Your task to perform on an android device: Open calendar and show me the second week of next month Image 0: 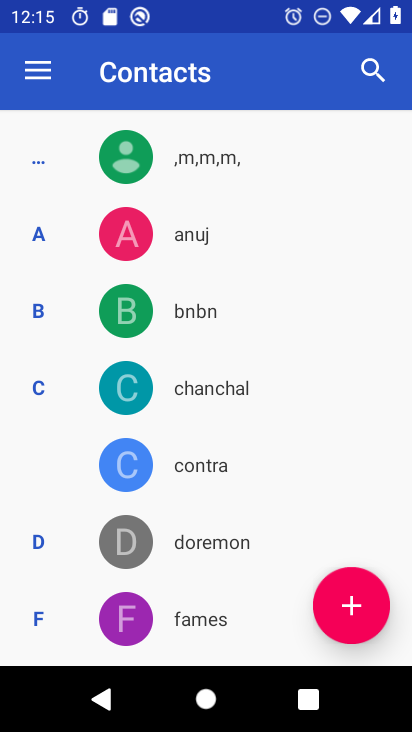
Step 0: press home button
Your task to perform on an android device: Open calendar and show me the second week of next month Image 1: 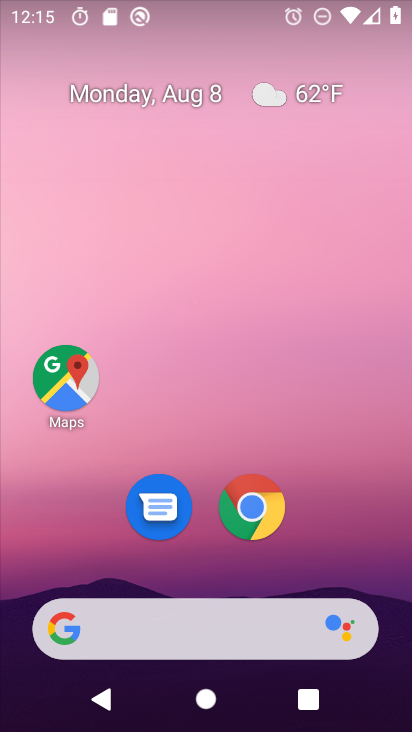
Step 1: drag from (363, 523) to (317, 0)
Your task to perform on an android device: Open calendar and show me the second week of next month Image 2: 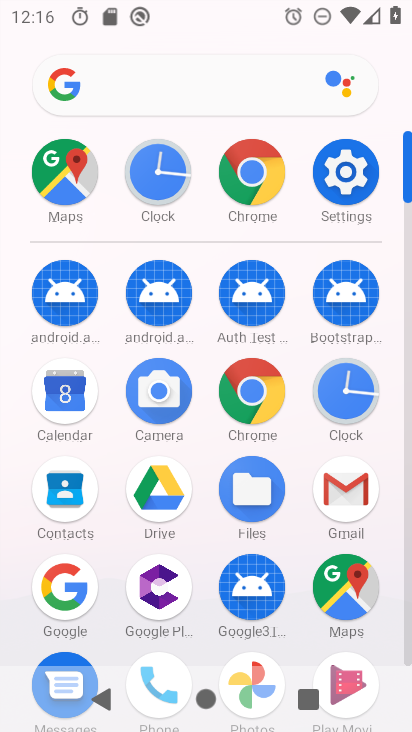
Step 2: click (56, 404)
Your task to perform on an android device: Open calendar and show me the second week of next month Image 3: 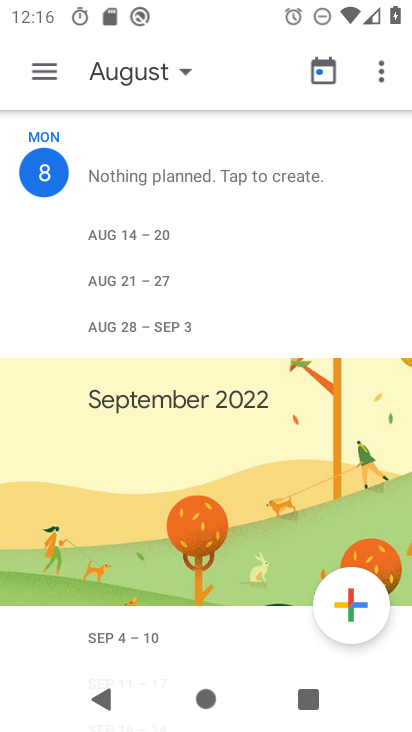
Step 3: click (90, 71)
Your task to perform on an android device: Open calendar and show me the second week of next month Image 4: 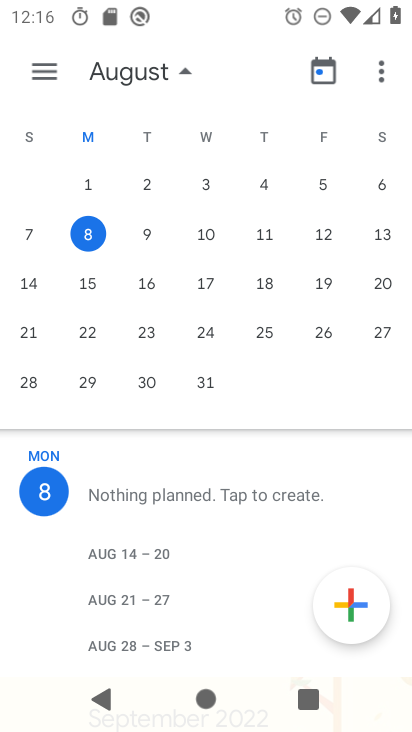
Step 4: click (5, 295)
Your task to perform on an android device: Open calendar and show me the second week of next month Image 5: 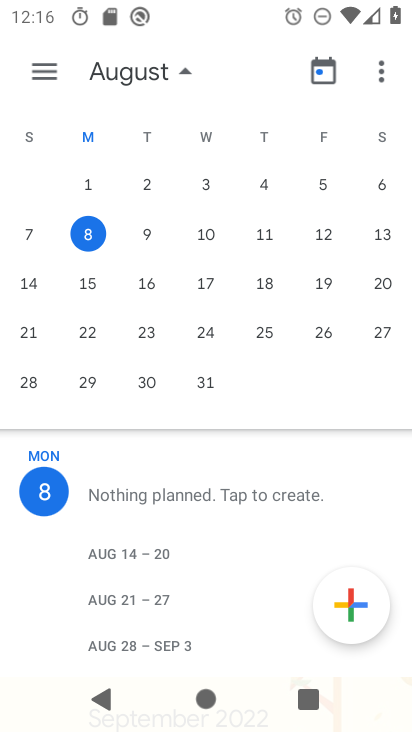
Step 5: drag from (306, 300) to (27, 300)
Your task to perform on an android device: Open calendar and show me the second week of next month Image 6: 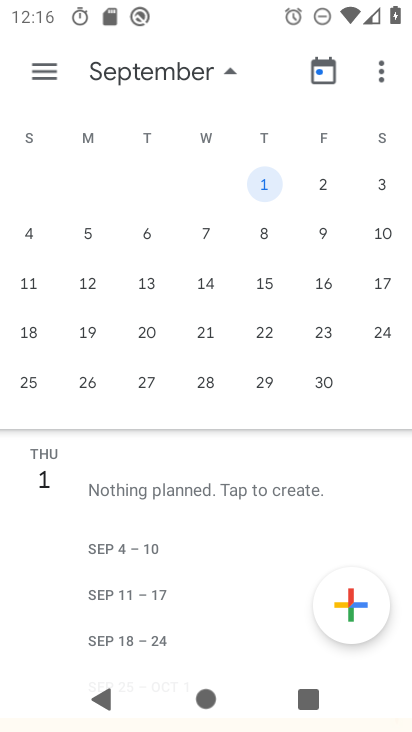
Step 6: click (139, 285)
Your task to perform on an android device: Open calendar and show me the second week of next month Image 7: 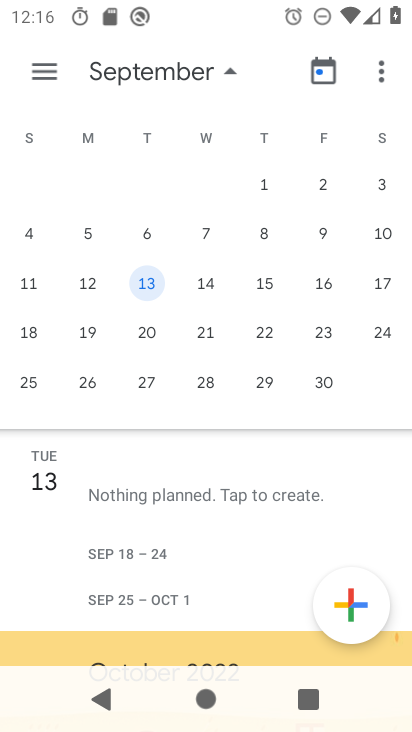
Step 7: click (33, 57)
Your task to perform on an android device: Open calendar and show me the second week of next month Image 8: 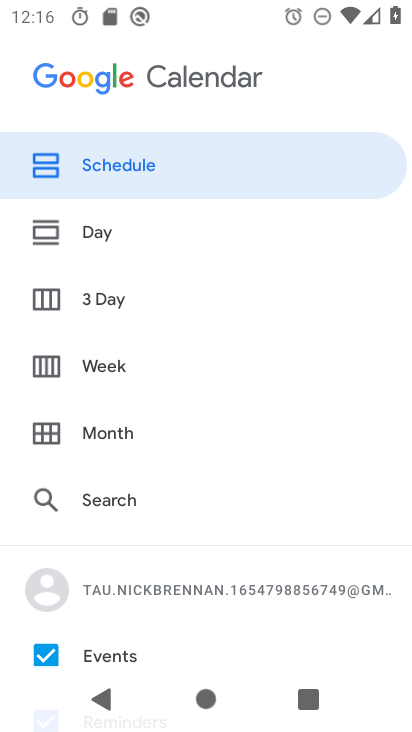
Step 8: click (116, 366)
Your task to perform on an android device: Open calendar and show me the second week of next month Image 9: 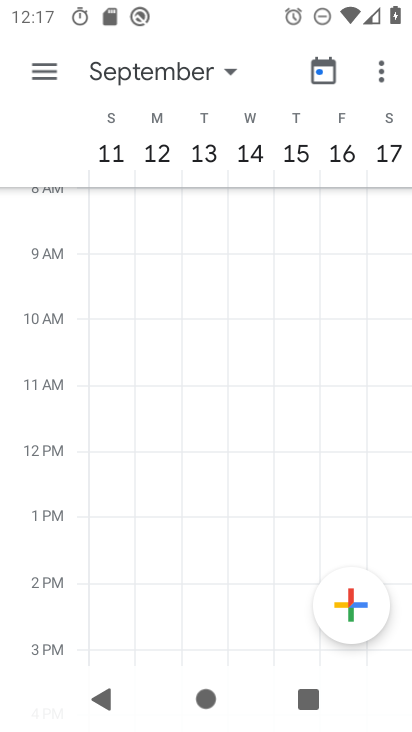
Step 9: task complete